Your task to perform on an android device: open chrome and create a bookmark for the current page Image 0: 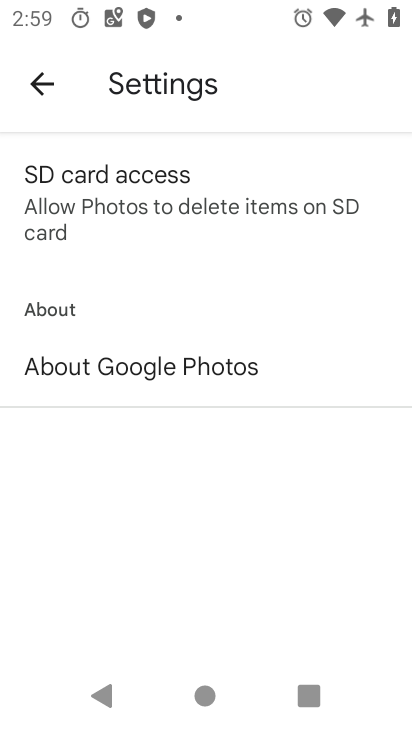
Step 0: press home button
Your task to perform on an android device: open chrome and create a bookmark for the current page Image 1: 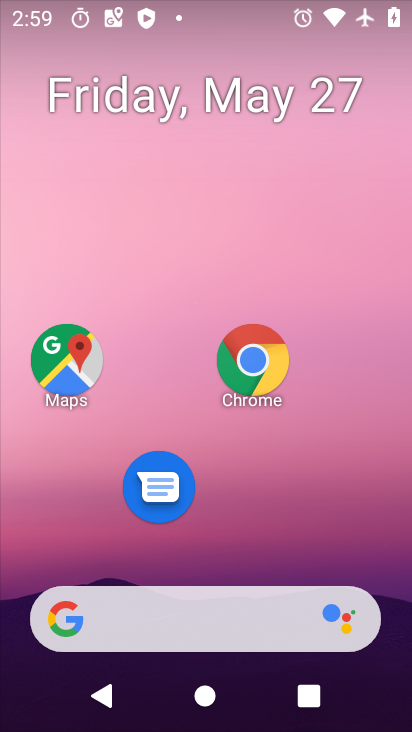
Step 1: click (257, 366)
Your task to perform on an android device: open chrome and create a bookmark for the current page Image 2: 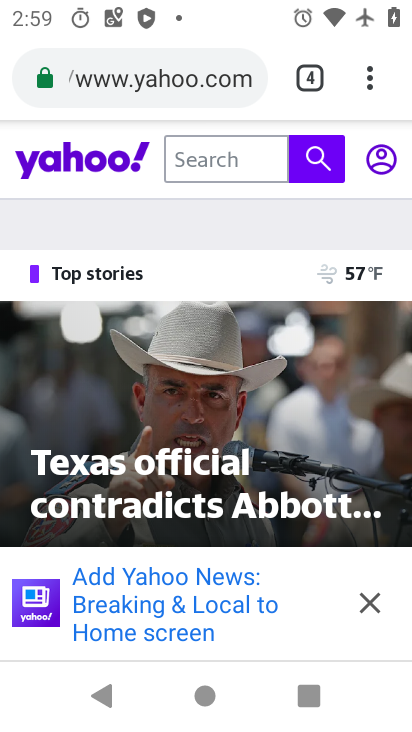
Step 2: click (366, 74)
Your task to perform on an android device: open chrome and create a bookmark for the current page Image 3: 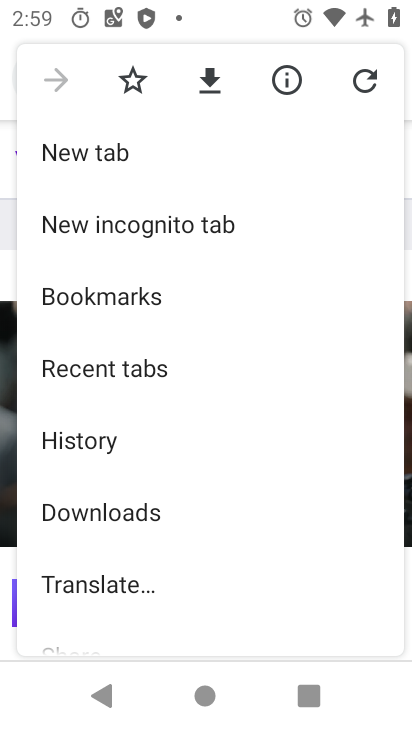
Step 3: click (138, 82)
Your task to perform on an android device: open chrome and create a bookmark for the current page Image 4: 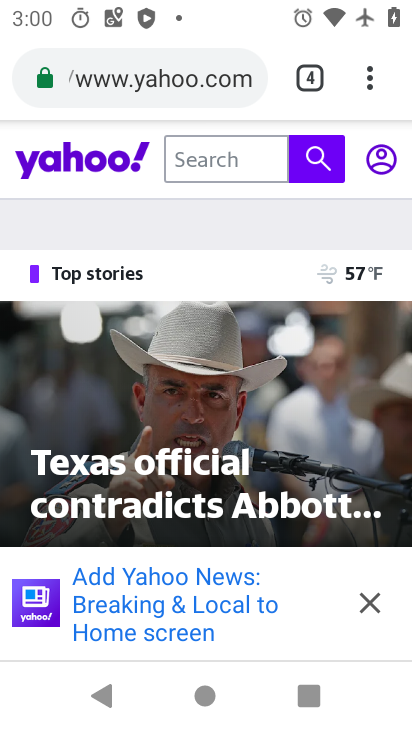
Step 4: task complete